Your task to perform on an android device: Open Chrome and go to the settings page Image 0: 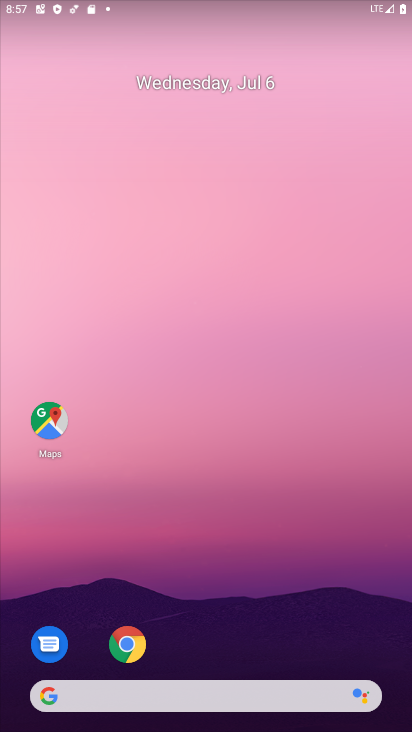
Step 0: drag from (258, 643) to (269, 156)
Your task to perform on an android device: Open Chrome and go to the settings page Image 1: 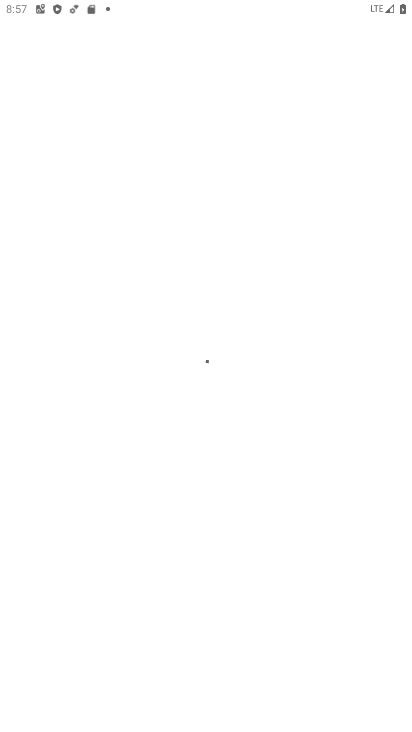
Step 1: press home button
Your task to perform on an android device: Open Chrome and go to the settings page Image 2: 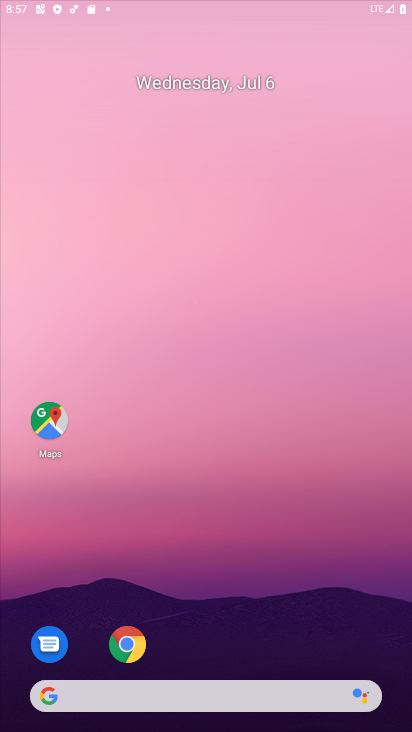
Step 2: drag from (215, 613) to (222, 199)
Your task to perform on an android device: Open Chrome and go to the settings page Image 3: 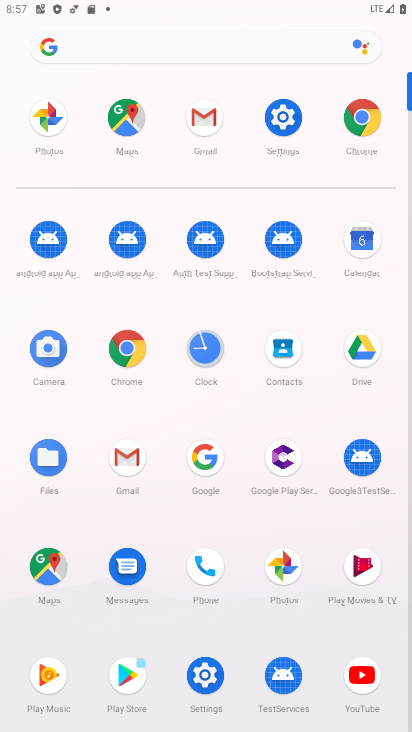
Step 3: click (344, 120)
Your task to perform on an android device: Open Chrome and go to the settings page Image 4: 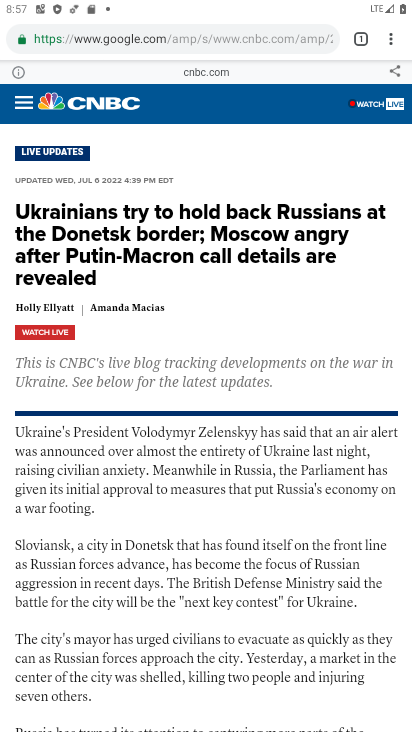
Step 4: click (387, 27)
Your task to perform on an android device: Open Chrome and go to the settings page Image 5: 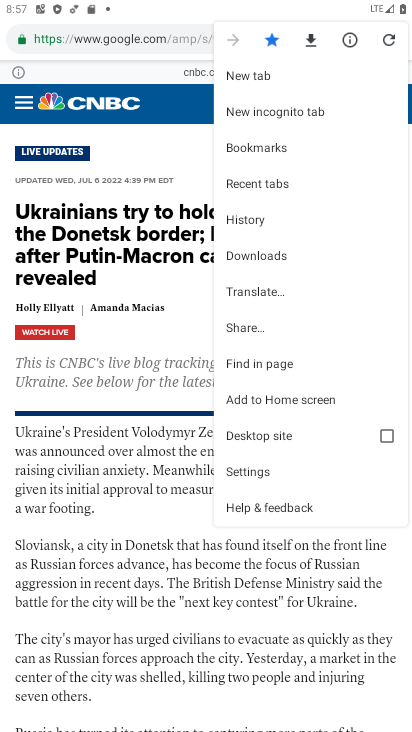
Step 5: click (245, 469)
Your task to perform on an android device: Open Chrome and go to the settings page Image 6: 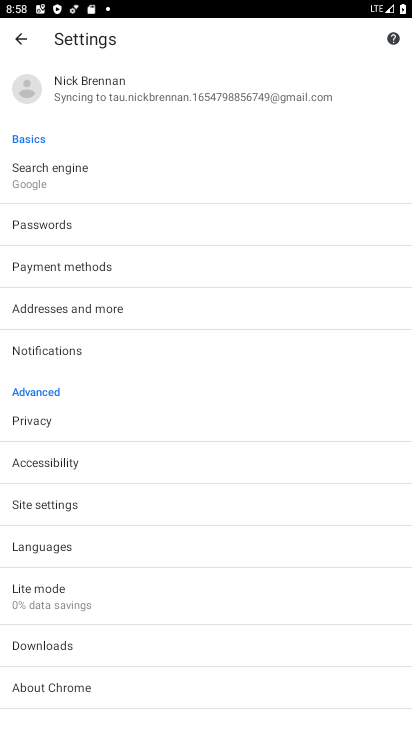
Step 6: task complete